Your task to perform on an android device: open app "Messenger Lite" (install if not already installed) Image 0: 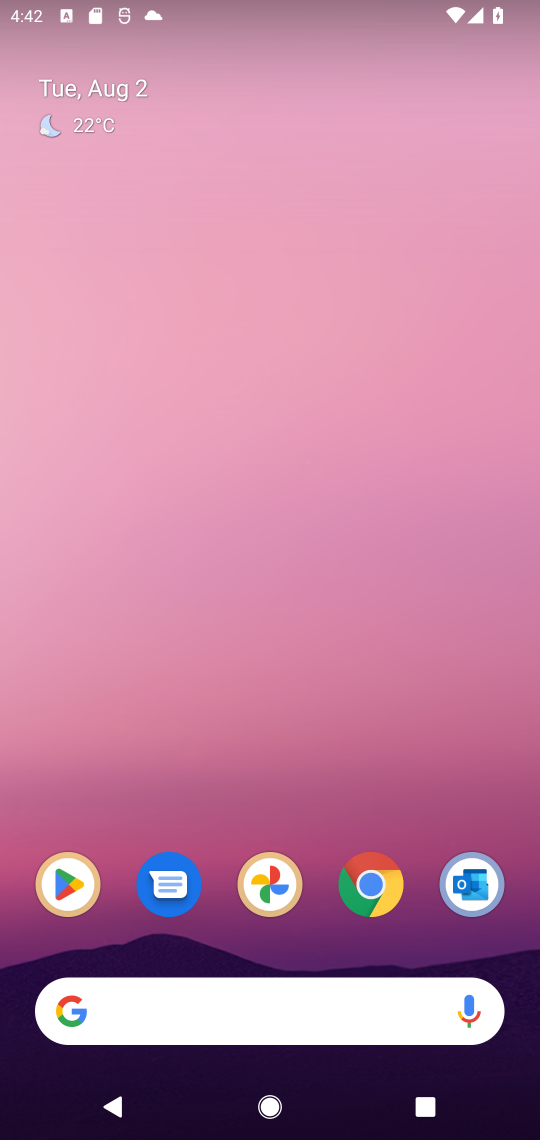
Step 0: click (59, 885)
Your task to perform on an android device: open app "Messenger Lite" (install if not already installed) Image 1: 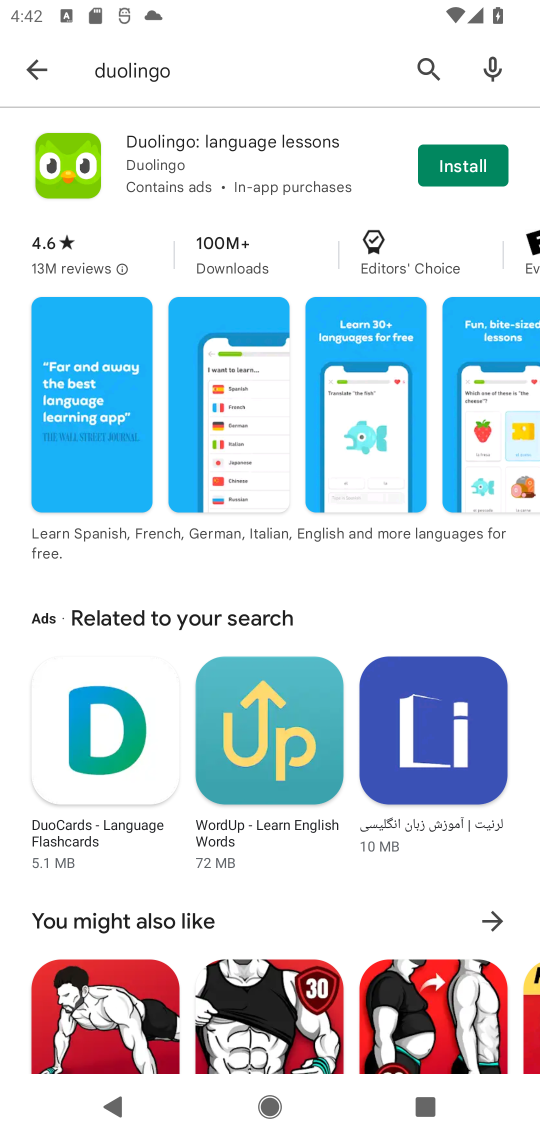
Step 1: click (17, 59)
Your task to perform on an android device: open app "Messenger Lite" (install if not already installed) Image 2: 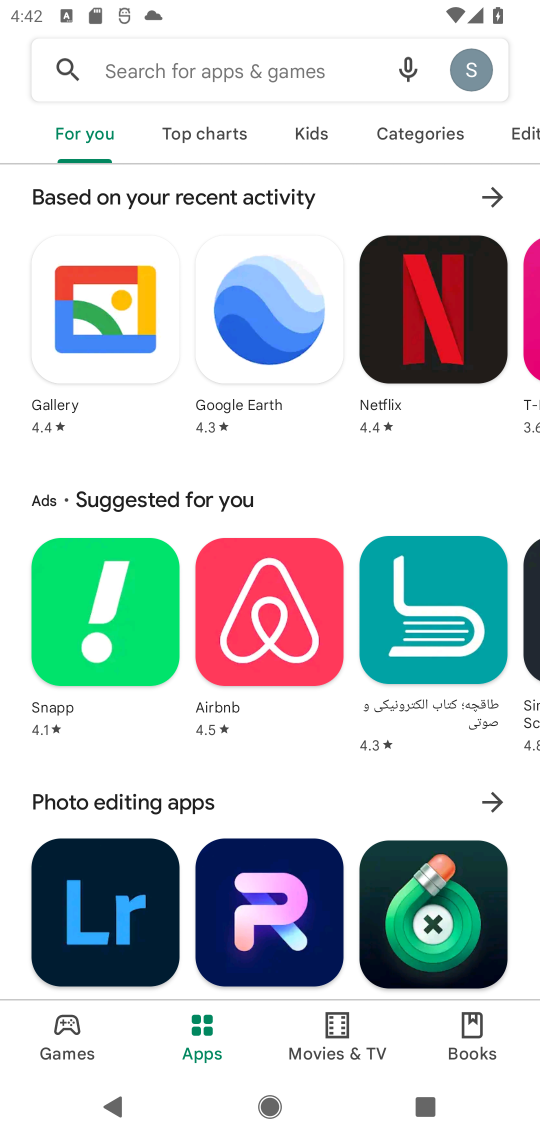
Step 2: click (196, 65)
Your task to perform on an android device: open app "Messenger Lite" (install if not already installed) Image 3: 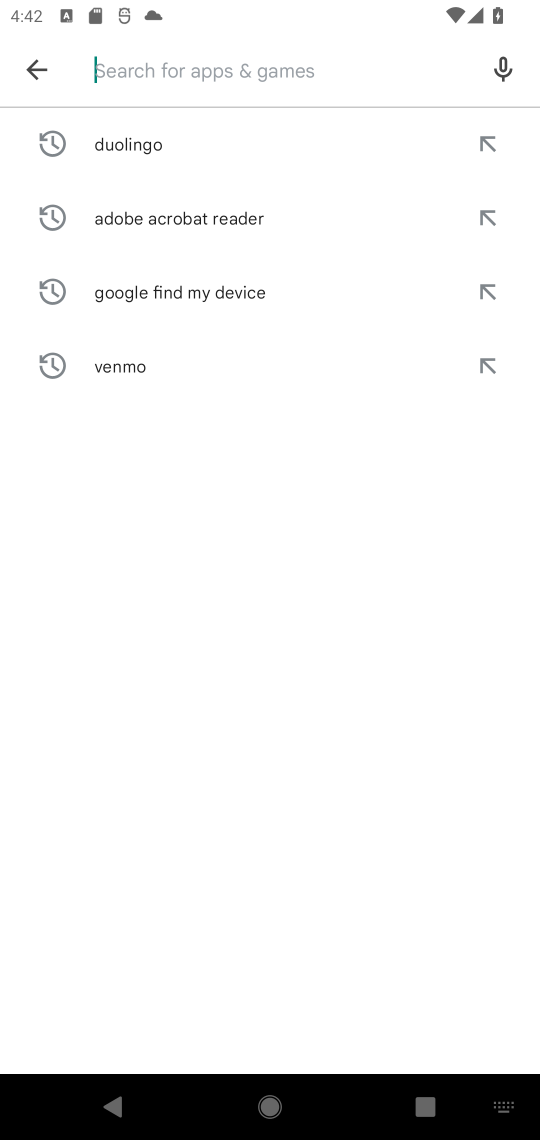
Step 3: type "Messenger Lite"
Your task to perform on an android device: open app "Messenger Lite" (install if not already installed) Image 4: 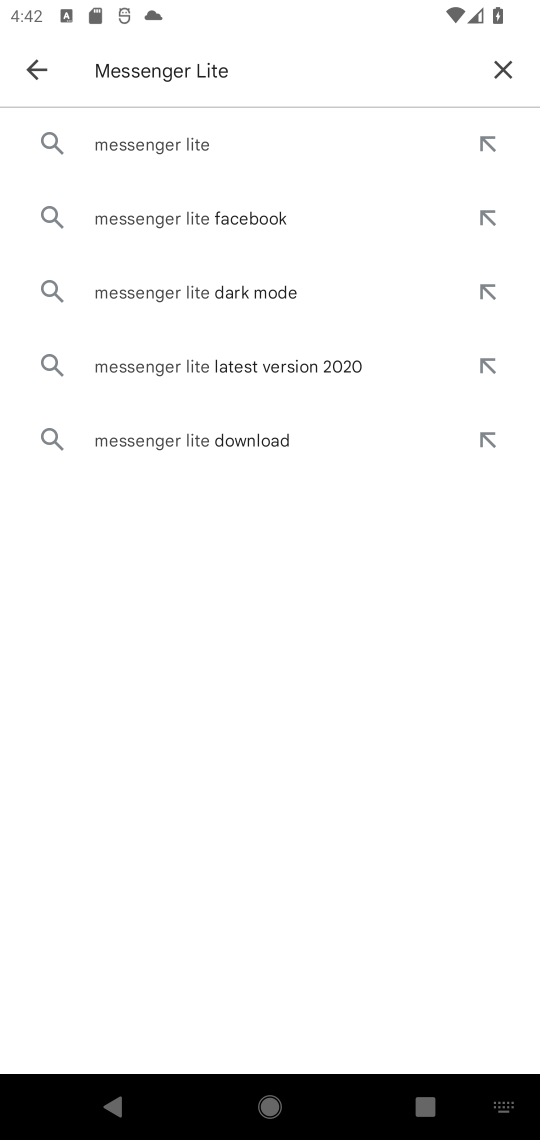
Step 4: click (156, 151)
Your task to perform on an android device: open app "Messenger Lite" (install if not already installed) Image 5: 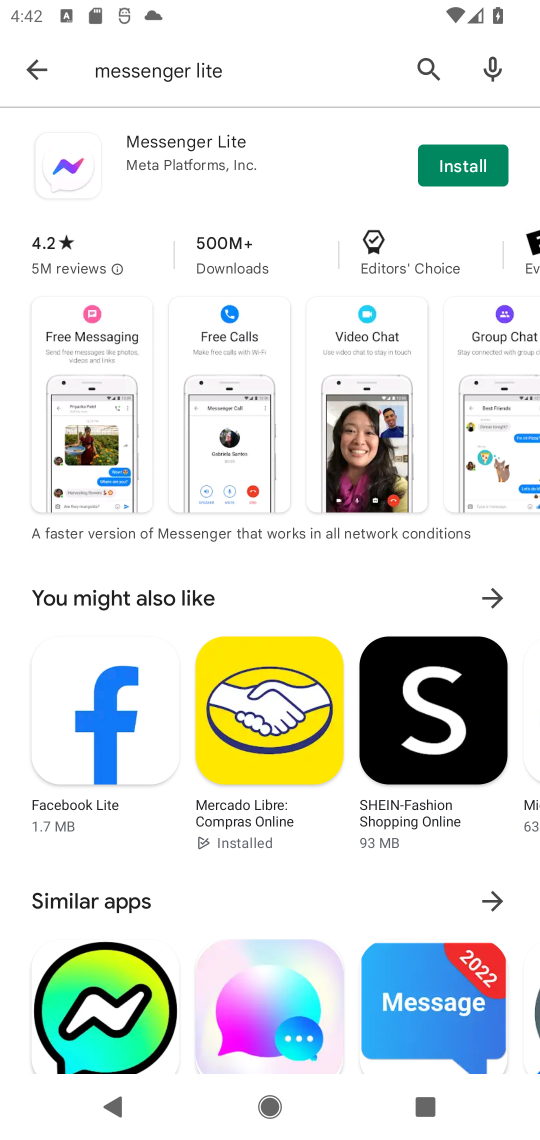
Step 5: click (439, 160)
Your task to perform on an android device: open app "Messenger Lite" (install if not already installed) Image 6: 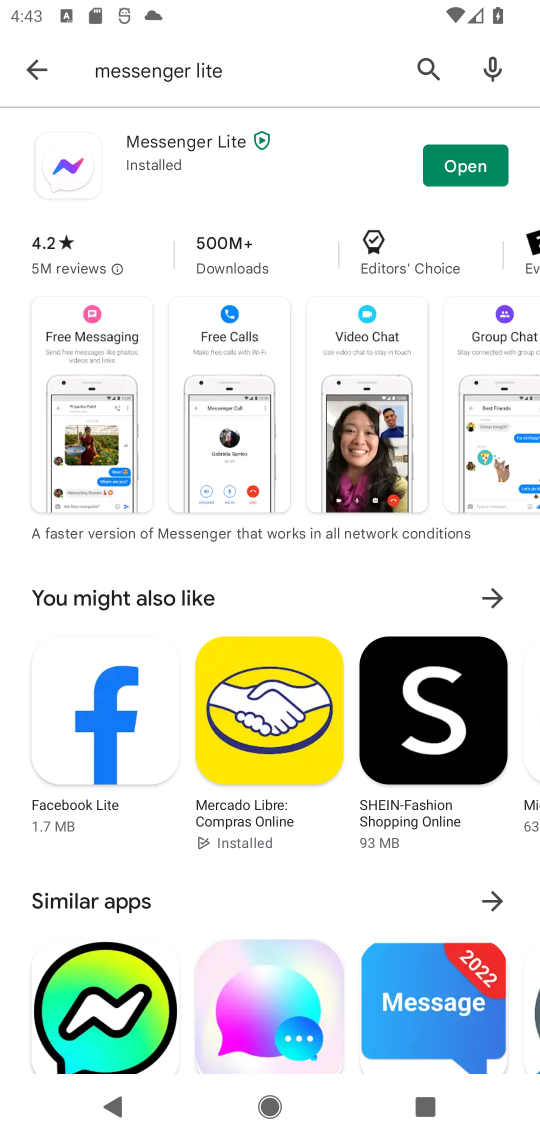
Step 6: click (464, 174)
Your task to perform on an android device: open app "Messenger Lite" (install if not already installed) Image 7: 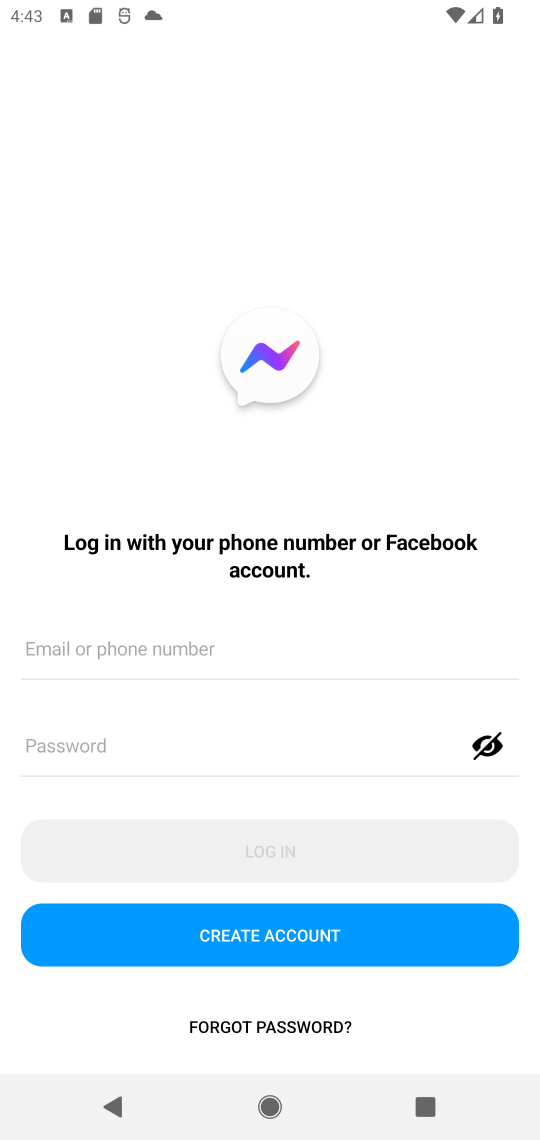
Step 7: task complete